Your task to perform on an android device: Open calendar and show me the second week of next month Image 0: 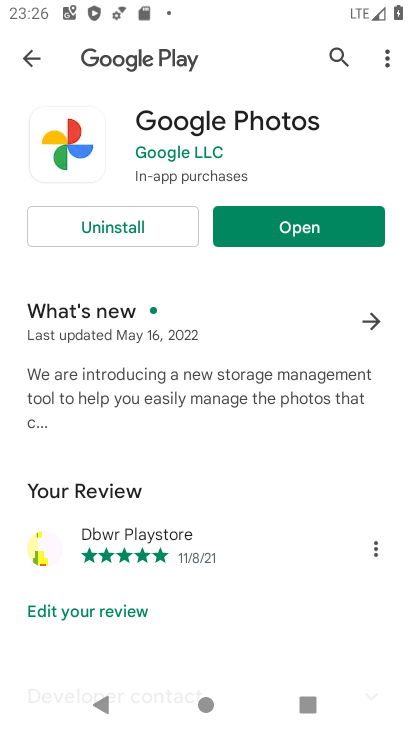
Step 0: press home button
Your task to perform on an android device: Open calendar and show me the second week of next month Image 1: 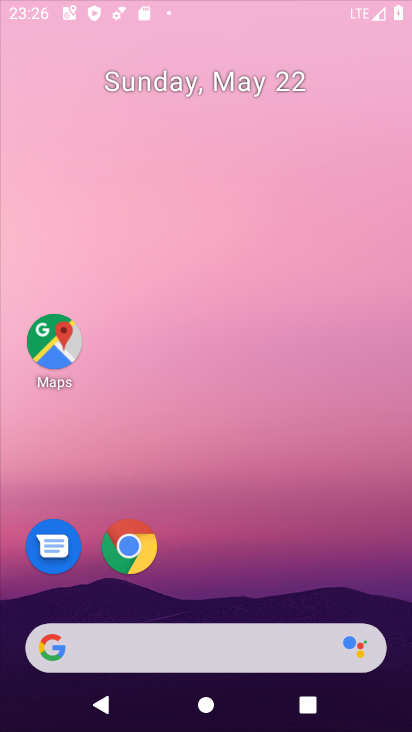
Step 1: drag from (172, 593) to (243, 178)
Your task to perform on an android device: Open calendar and show me the second week of next month Image 2: 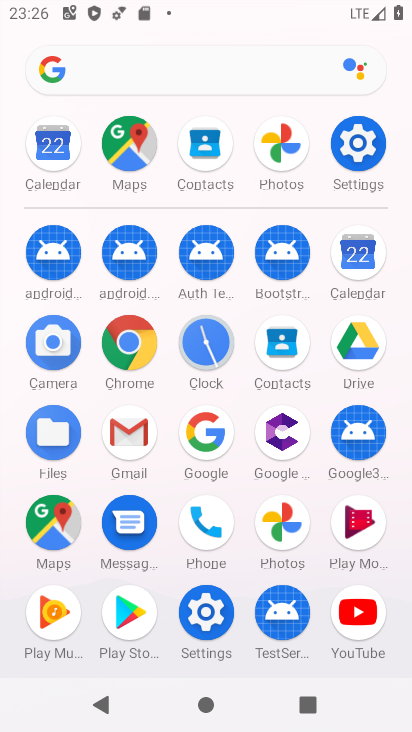
Step 2: click (49, 524)
Your task to perform on an android device: Open calendar and show me the second week of next month Image 3: 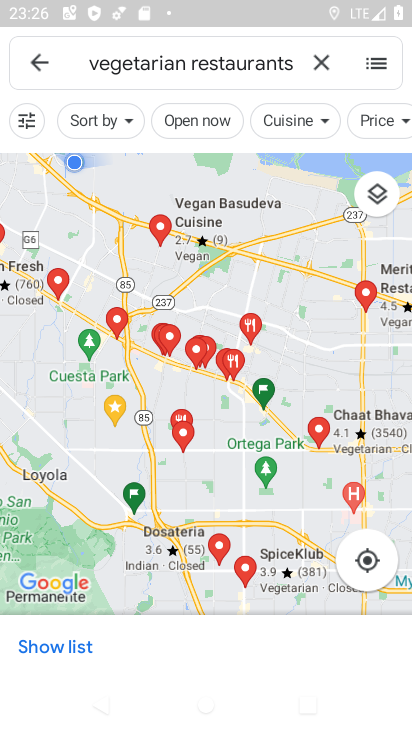
Step 3: press home button
Your task to perform on an android device: Open calendar and show me the second week of next month Image 4: 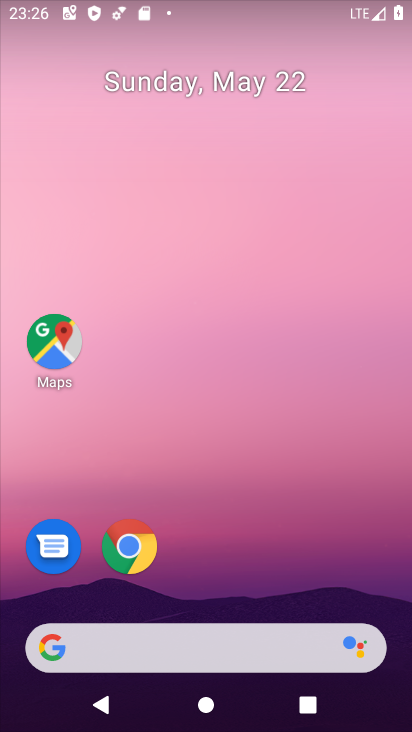
Step 4: drag from (175, 582) to (231, 95)
Your task to perform on an android device: Open calendar and show me the second week of next month Image 5: 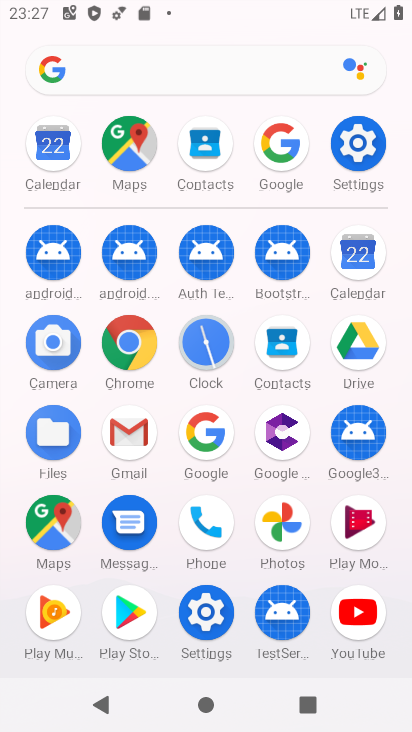
Step 5: click (350, 248)
Your task to perform on an android device: Open calendar and show me the second week of next month Image 6: 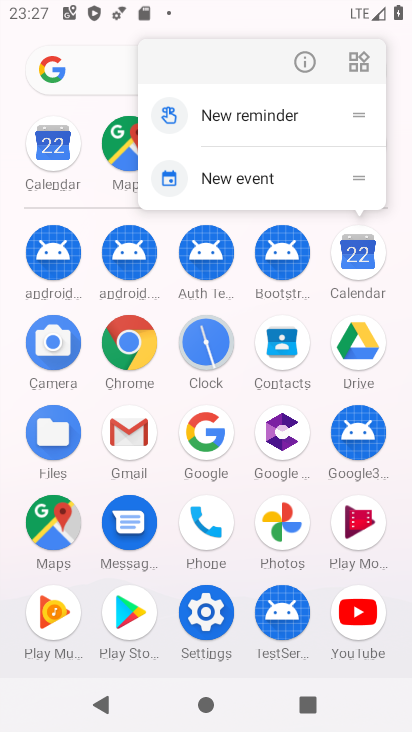
Step 6: click (356, 243)
Your task to perform on an android device: Open calendar and show me the second week of next month Image 7: 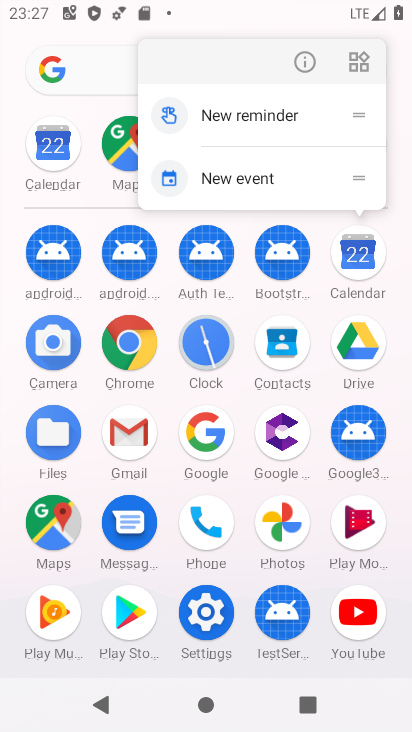
Step 7: click (309, 55)
Your task to perform on an android device: Open calendar and show me the second week of next month Image 8: 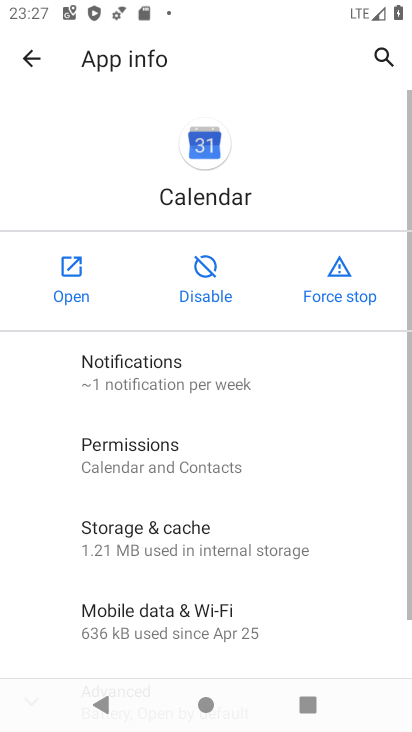
Step 8: click (64, 276)
Your task to perform on an android device: Open calendar and show me the second week of next month Image 9: 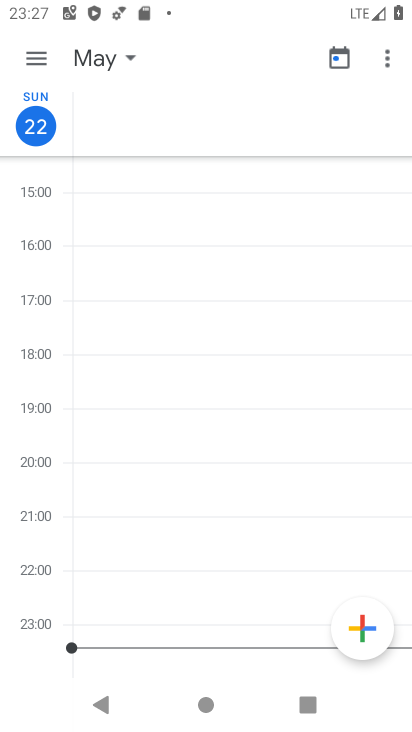
Step 9: drag from (208, 492) to (208, 218)
Your task to perform on an android device: Open calendar and show me the second week of next month Image 10: 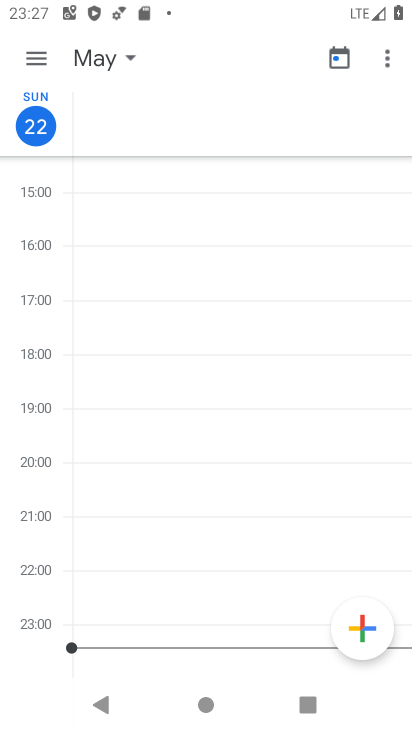
Step 10: drag from (224, 526) to (212, 142)
Your task to perform on an android device: Open calendar and show me the second week of next month Image 11: 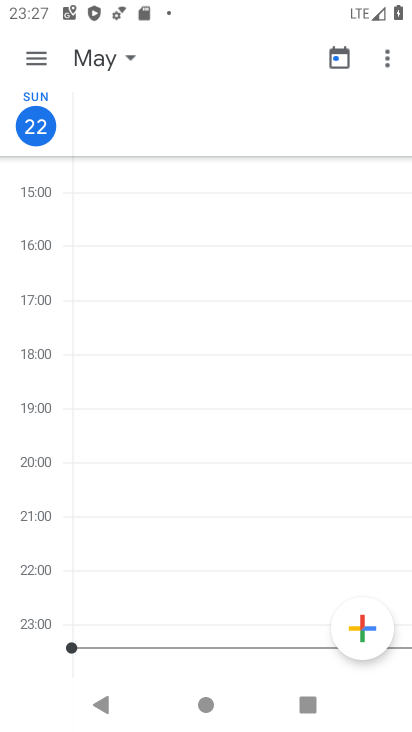
Step 11: click (100, 62)
Your task to perform on an android device: Open calendar and show me the second week of next month Image 12: 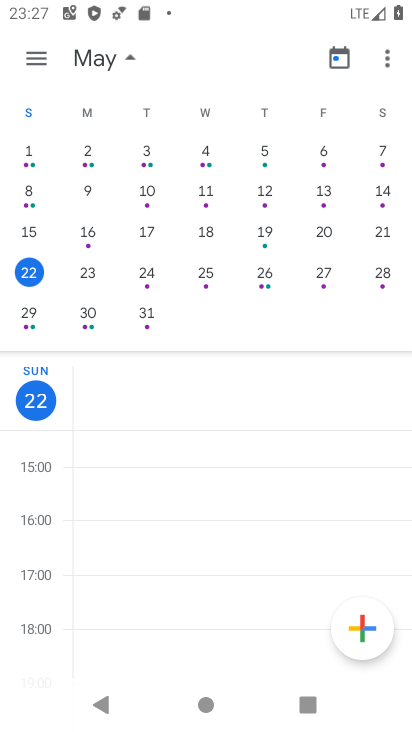
Step 12: drag from (367, 230) to (2, 235)
Your task to perform on an android device: Open calendar and show me the second week of next month Image 13: 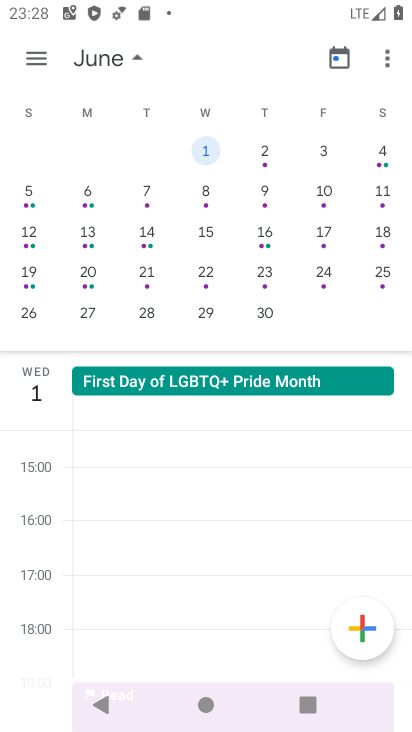
Step 13: click (201, 192)
Your task to perform on an android device: Open calendar and show me the second week of next month Image 14: 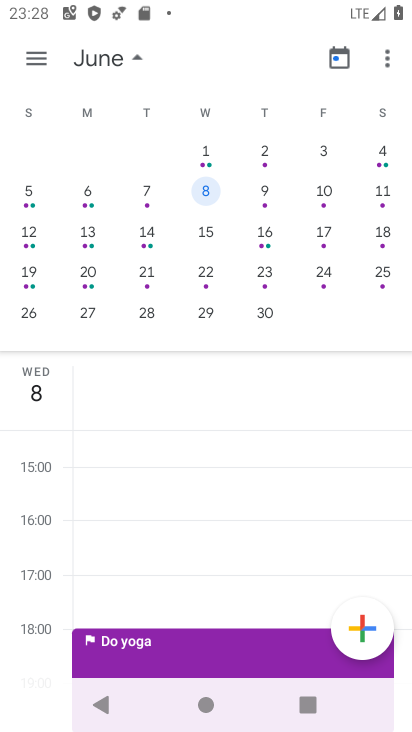
Step 14: task complete